Your task to perform on an android device: Open Google Chrome and open the bookmarks view Image 0: 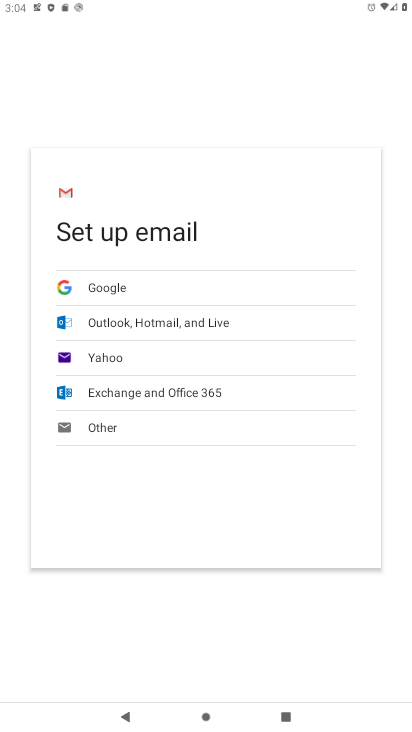
Step 0: press home button
Your task to perform on an android device: Open Google Chrome and open the bookmarks view Image 1: 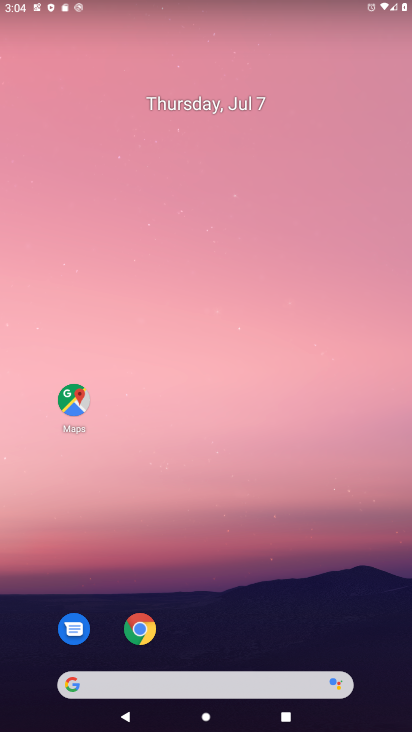
Step 1: click (135, 625)
Your task to perform on an android device: Open Google Chrome and open the bookmarks view Image 2: 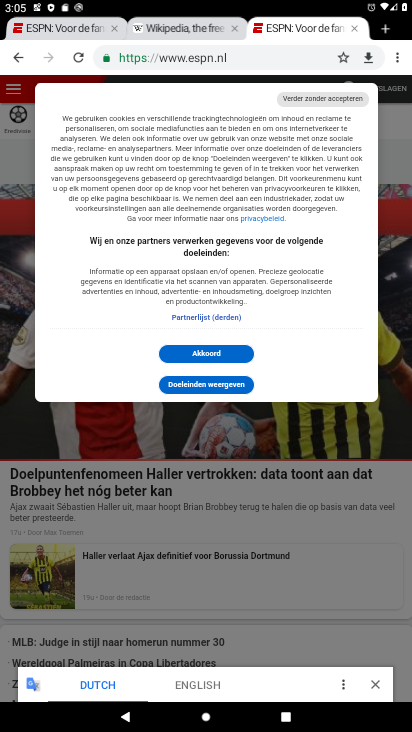
Step 2: click (400, 58)
Your task to perform on an android device: Open Google Chrome and open the bookmarks view Image 3: 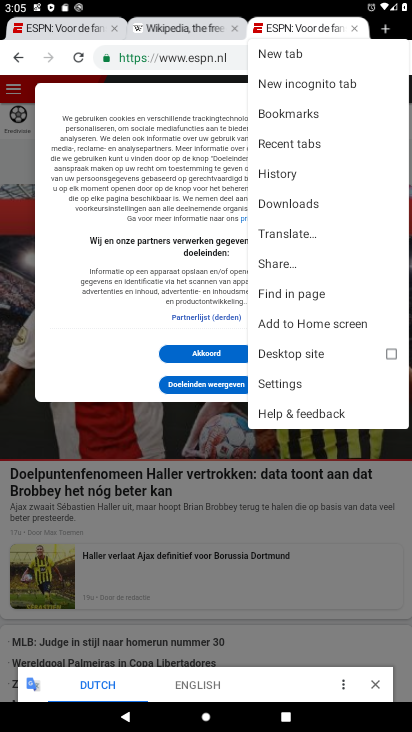
Step 3: click (310, 121)
Your task to perform on an android device: Open Google Chrome and open the bookmarks view Image 4: 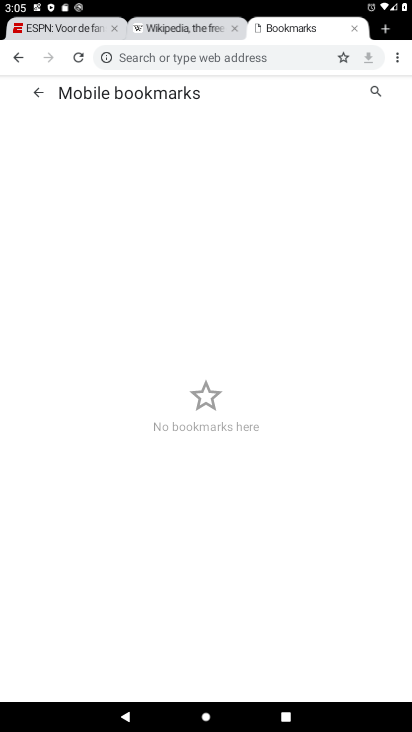
Step 4: click (296, 116)
Your task to perform on an android device: Open Google Chrome and open the bookmarks view Image 5: 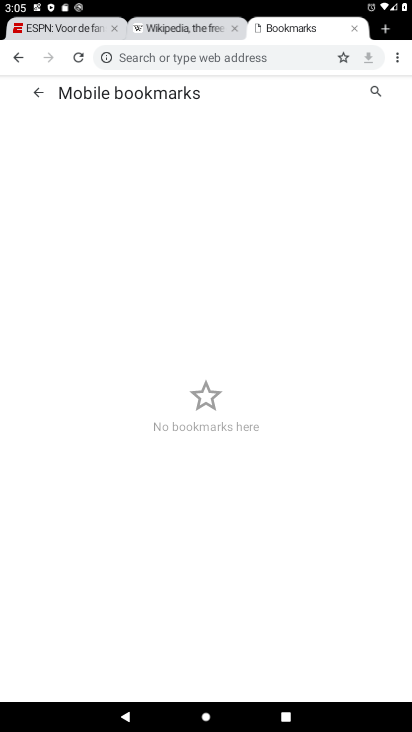
Step 5: task complete